Your task to perform on an android device: Go to Maps Image 0: 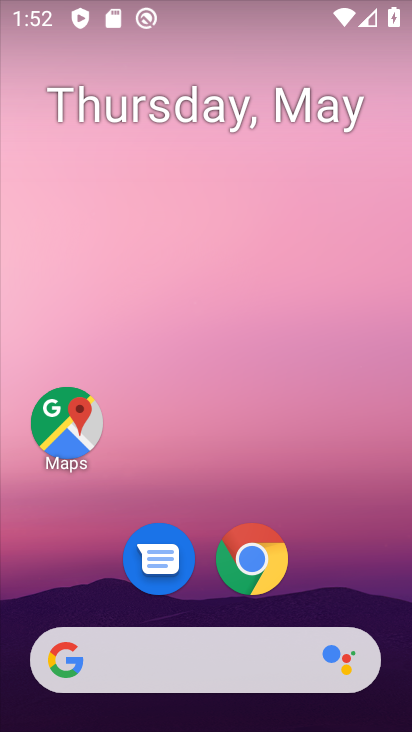
Step 0: click (27, 426)
Your task to perform on an android device: Go to Maps Image 1: 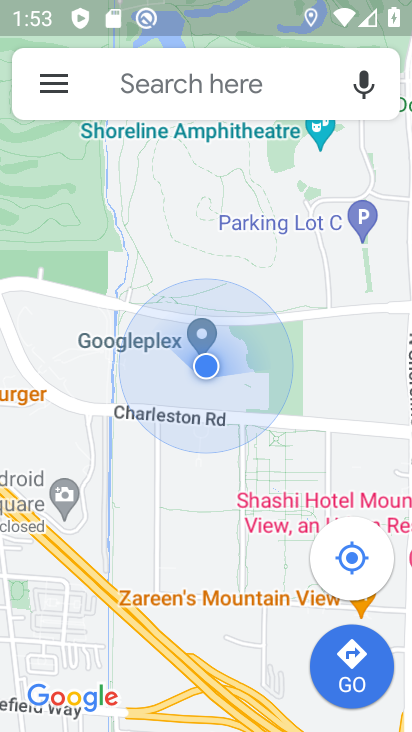
Step 1: task complete